Your task to perform on an android device: Open Google Chrome and open the bookmarks view Image 0: 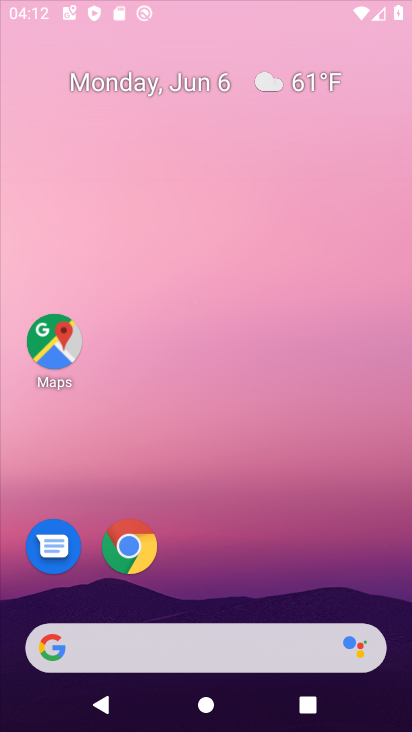
Step 0: press home button
Your task to perform on an android device: Open Google Chrome and open the bookmarks view Image 1: 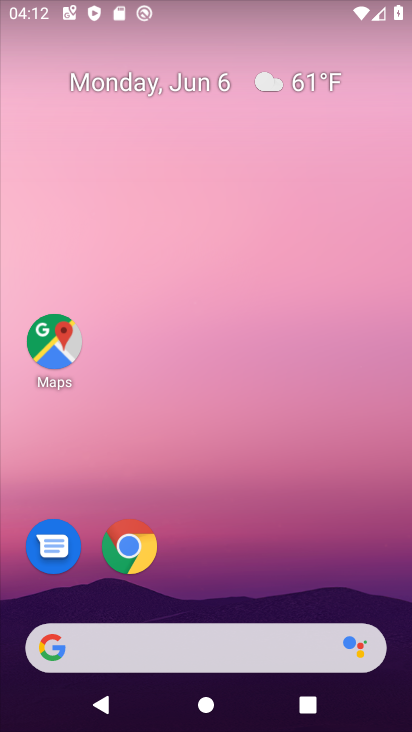
Step 1: click (130, 538)
Your task to perform on an android device: Open Google Chrome and open the bookmarks view Image 2: 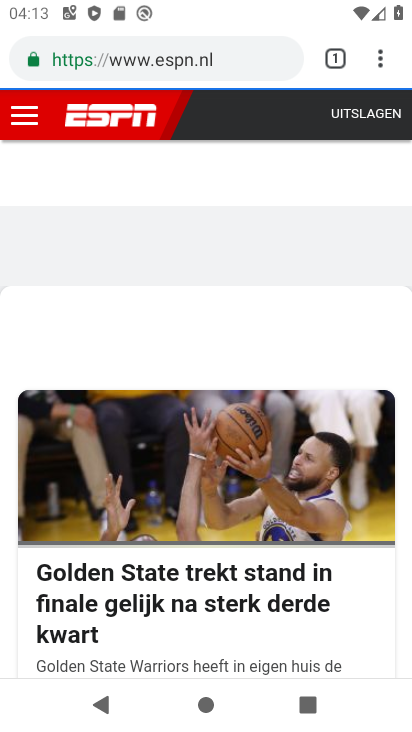
Step 2: task complete